Your task to perform on an android device: Go to Android settings Image 0: 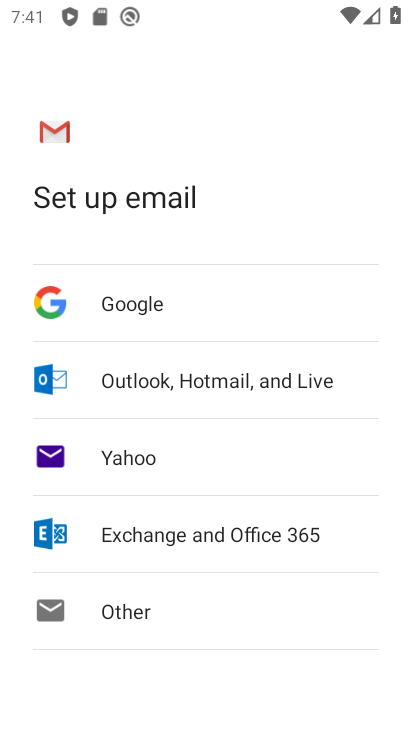
Step 0: press home button
Your task to perform on an android device: Go to Android settings Image 1: 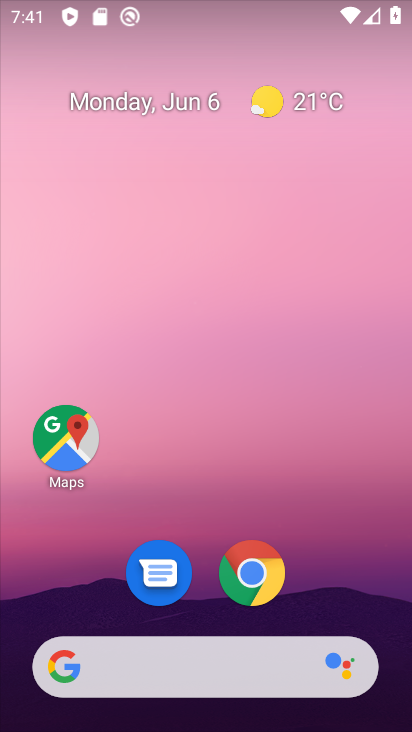
Step 1: drag from (352, 566) to (311, 8)
Your task to perform on an android device: Go to Android settings Image 2: 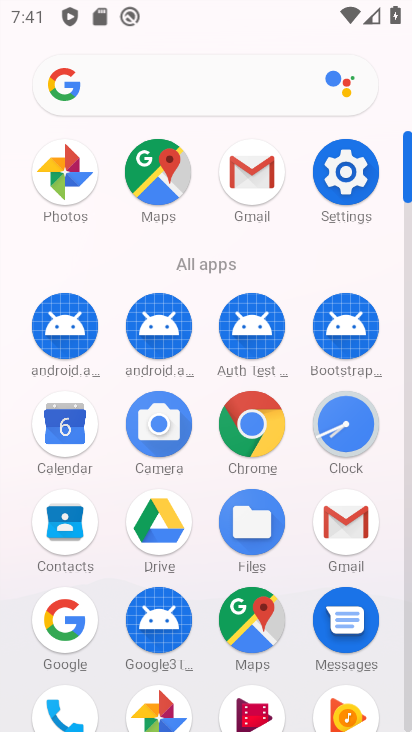
Step 2: click (335, 175)
Your task to perform on an android device: Go to Android settings Image 3: 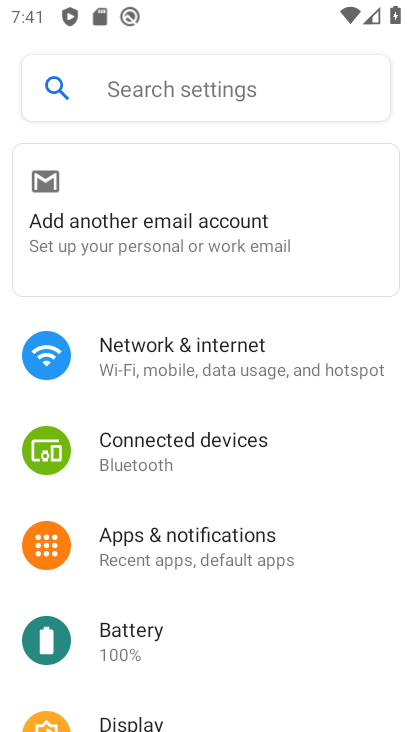
Step 3: drag from (203, 670) to (192, 72)
Your task to perform on an android device: Go to Android settings Image 4: 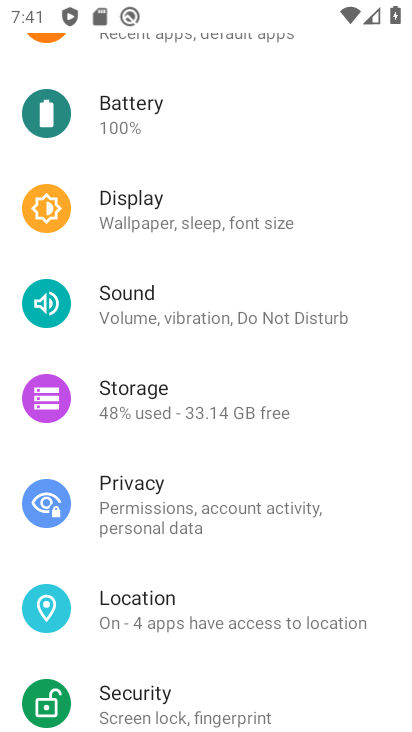
Step 4: drag from (184, 638) to (188, 0)
Your task to perform on an android device: Go to Android settings Image 5: 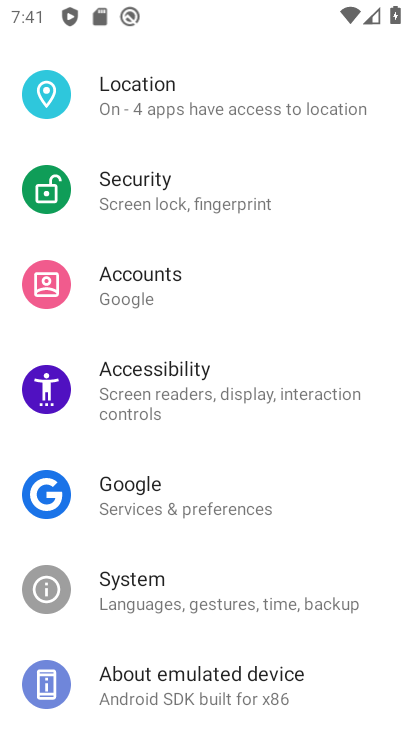
Step 5: click (187, 614)
Your task to perform on an android device: Go to Android settings Image 6: 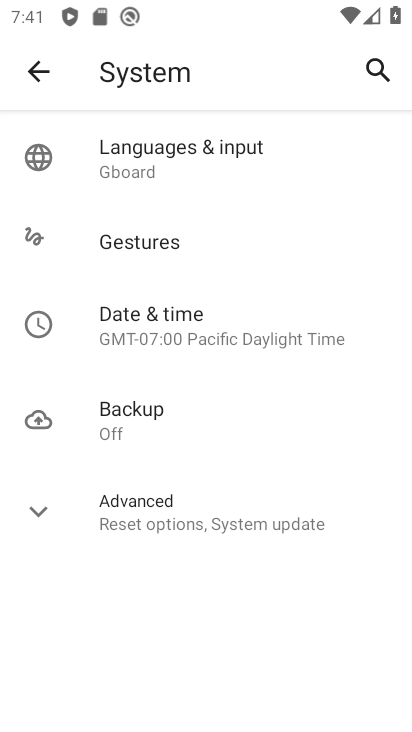
Step 6: task complete